Your task to perform on an android device: turn on javascript in the chrome app Image 0: 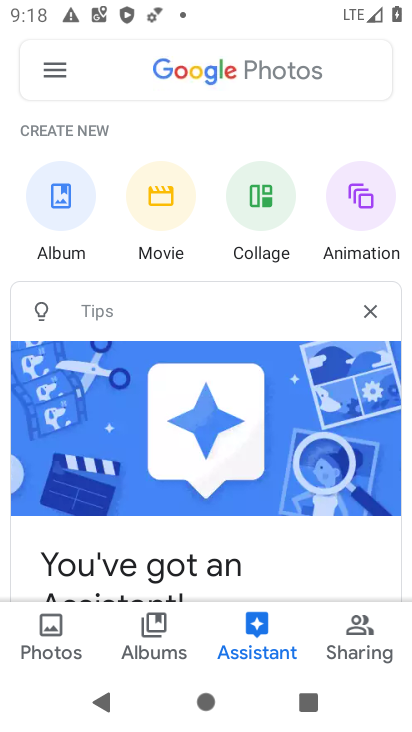
Step 0: press home button
Your task to perform on an android device: turn on javascript in the chrome app Image 1: 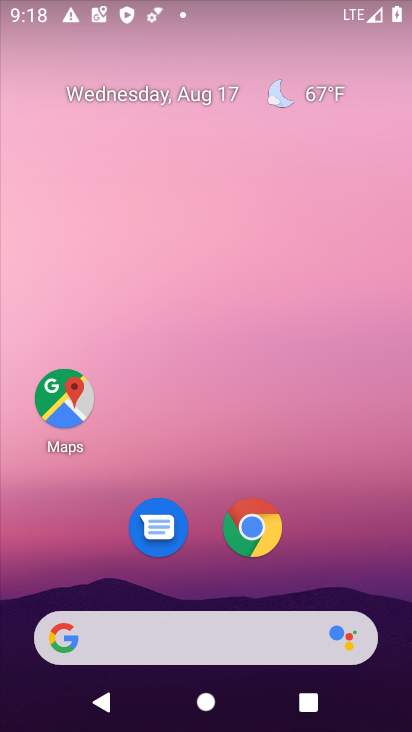
Step 1: click (251, 527)
Your task to perform on an android device: turn on javascript in the chrome app Image 2: 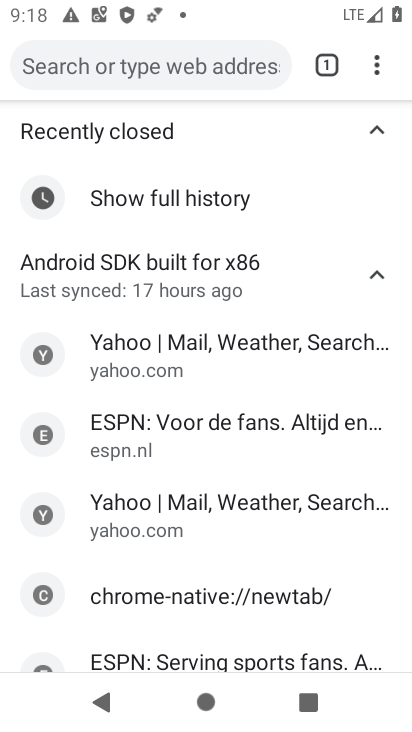
Step 2: click (387, 59)
Your task to perform on an android device: turn on javascript in the chrome app Image 3: 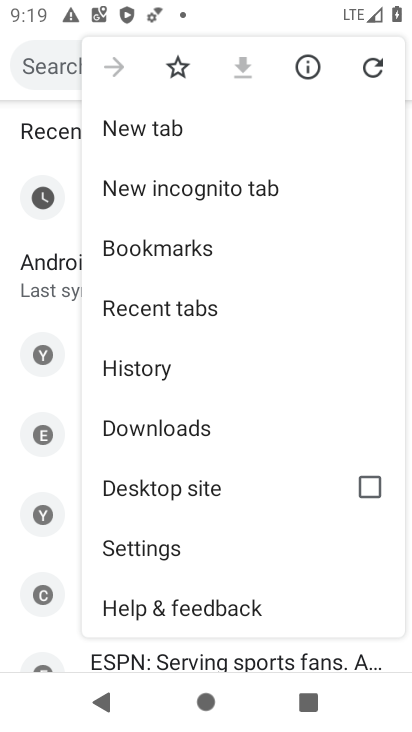
Step 3: click (145, 552)
Your task to perform on an android device: turn on javascript in the chrome app Image 4: 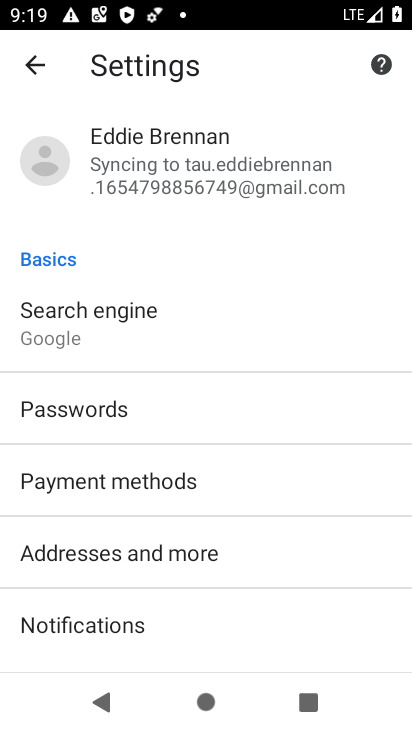
Step 4: drag from (119, 656) to (207, 104)
Your task to perform on an android device: turn on javascript in the chrome app Image 5: 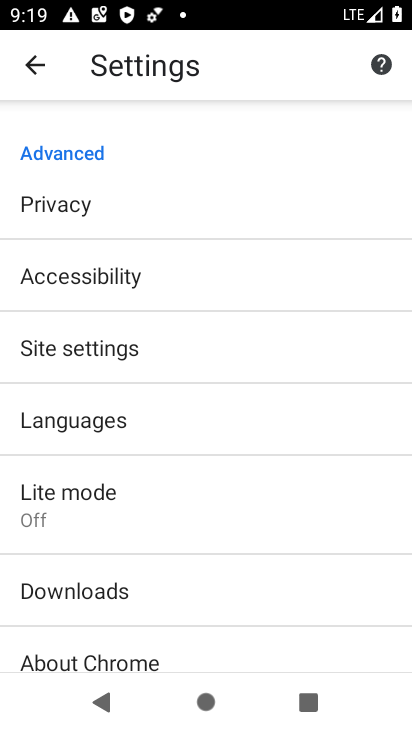
Step 5: click (88, 347)
Your task to perform on an android device: turn on javascript in the chrome app Image 6: 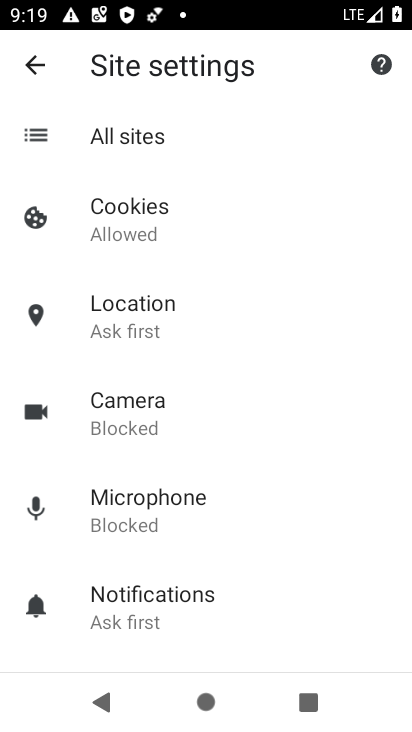
Step 6: drag from (219, 626) to (299, 110)
Your task to perform on an android device: turn on javascript in the chrome app Image 7: 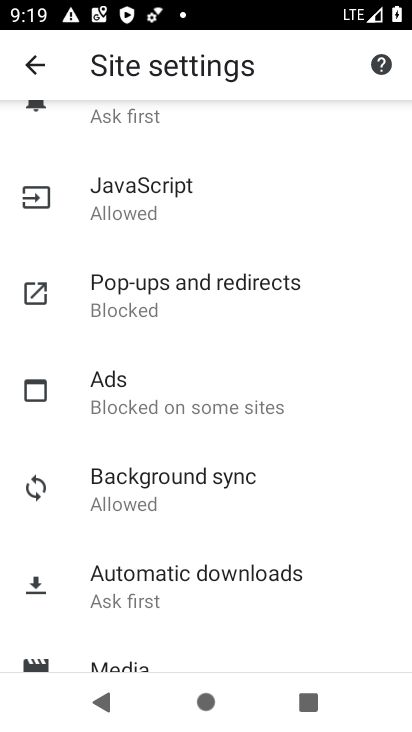
Step 7: click (186, 216)
Your task to perform on an android device: turn on javascript in the chrome app Image 8: 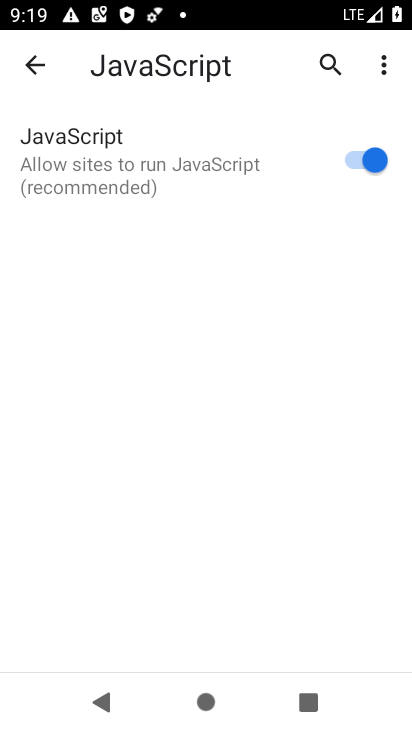
Step 8: task complete